Your task to perform on an android device: Open privacy settings Image 0: 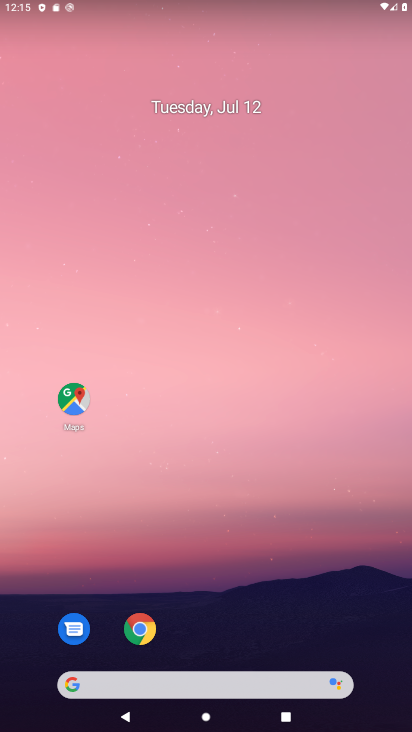
Step 0: press home button
Your task to perform on an android device: Open privacy settings Image 1: 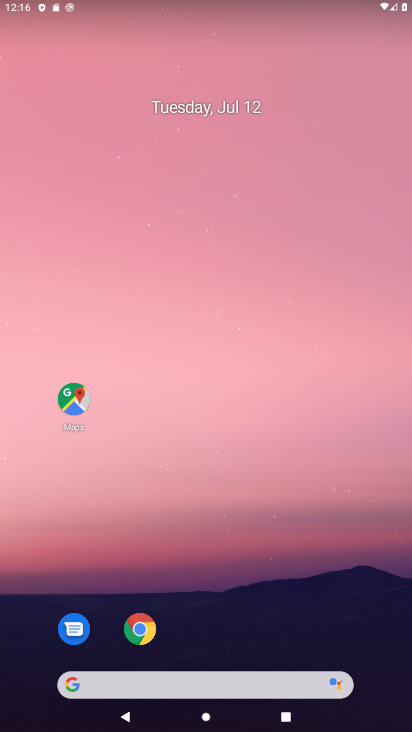
Step 1: drag from (202, 581) to (130, 132)
Your task to perform on an android device: Open privacy settings Image 2: 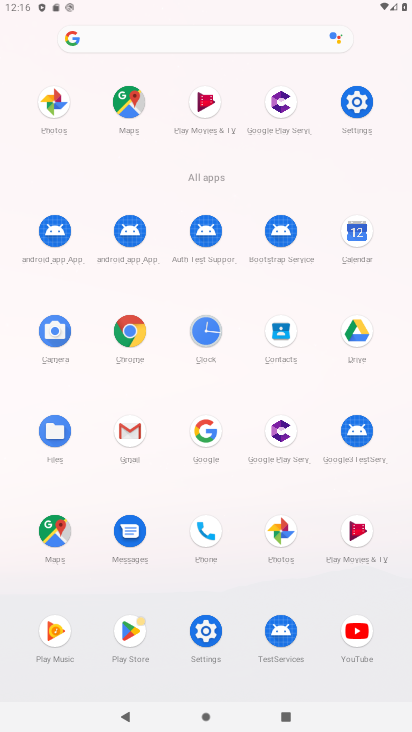
Step 2: click (220, 641)
Your task to perform on an android device: Open privacy settings Image 3: 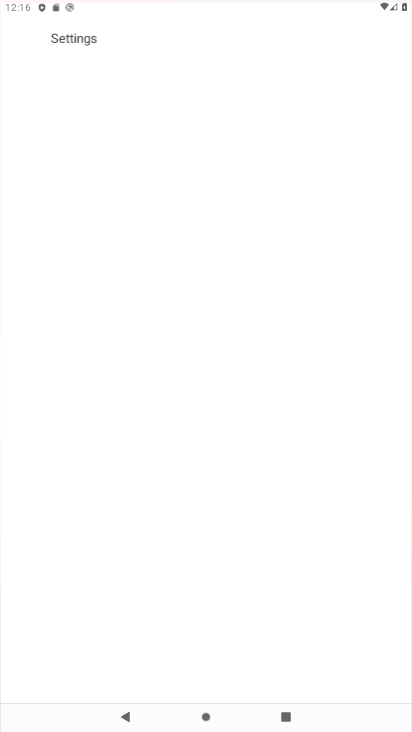
Step 3: click (220, 641)
Your task to perform on an android device: Open privacy settings Image 4: 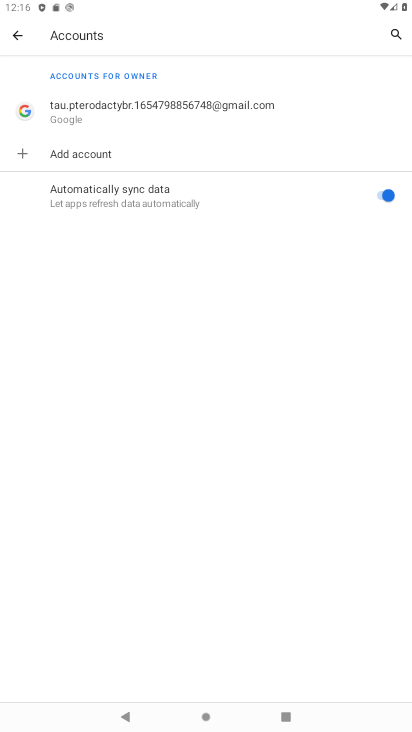
Step 4: press back button
Your task to perform on an android device: Open privacy settings Image 5: 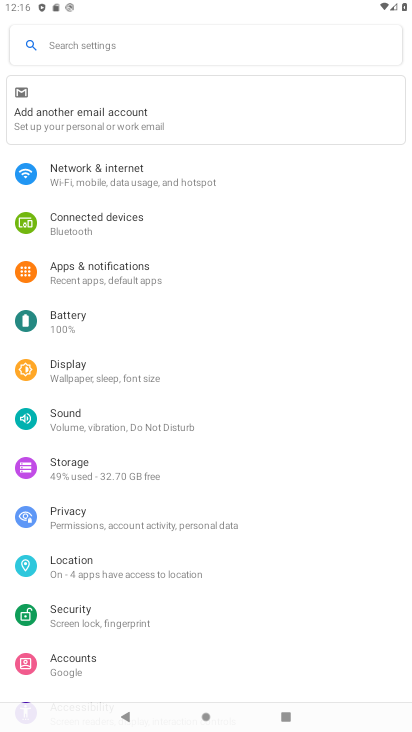
Step 5: click (134, 524)
Your task to perform on an android device: Open privacy settings Image 6: 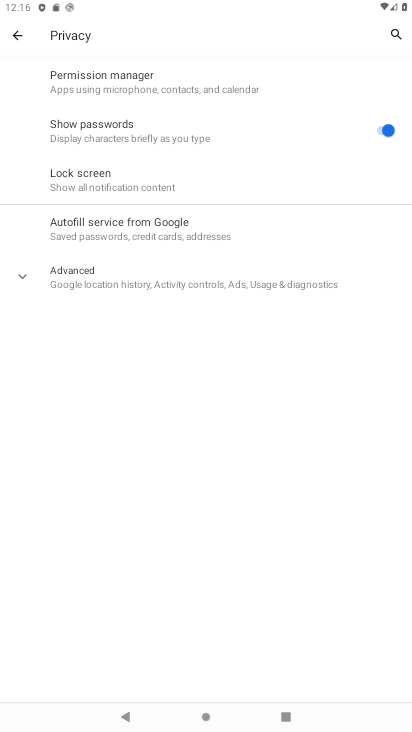
Step 6: task complete